Your task to perform on an android device: search for starred emails in the gmail app Image 0: 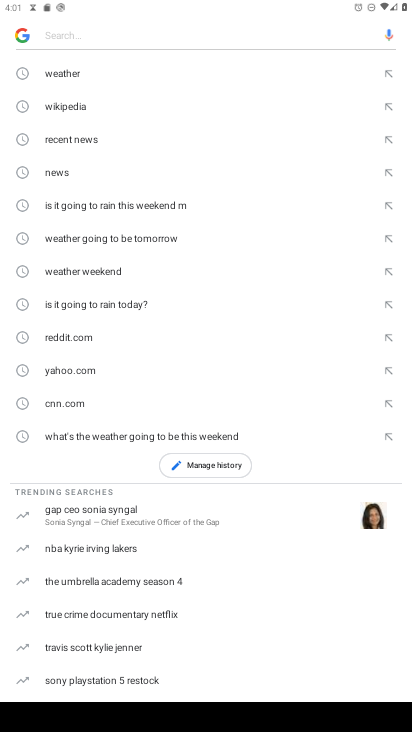
Step 0: press home button
Your task to perform on an android device: search for starred emails in the gmail app Image 1: 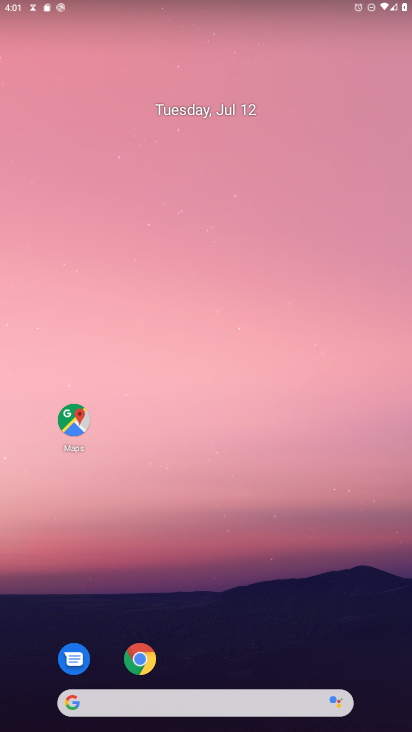
Step 1: drag from (176, 414) to (187, 64)
Your task to perform on an android device: search for starred emails in the gmail app Image 2: 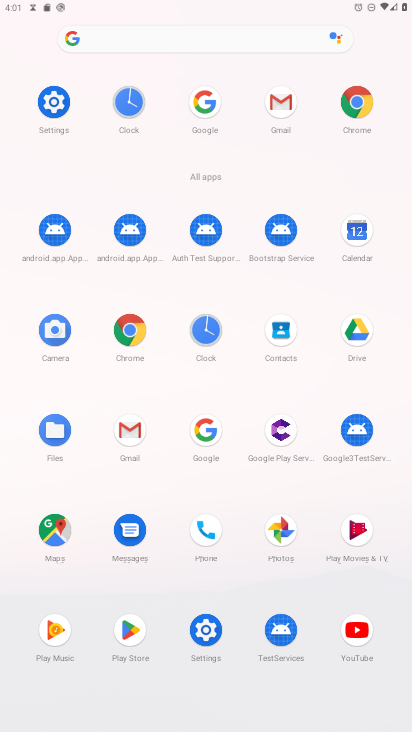
Step 2: click (284, 100)
Your task to perform on an android device: search for starred emails in the gmail app Image 3: 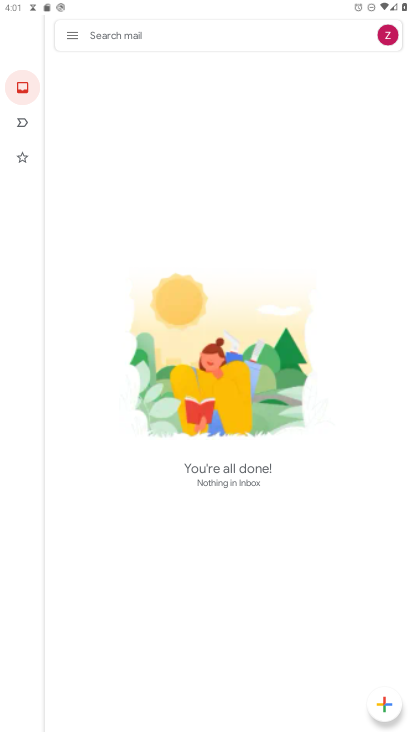
Step 3: click (68, 32)
Your task to perform on an android device: search for starred emails in the gmail app Image 4: 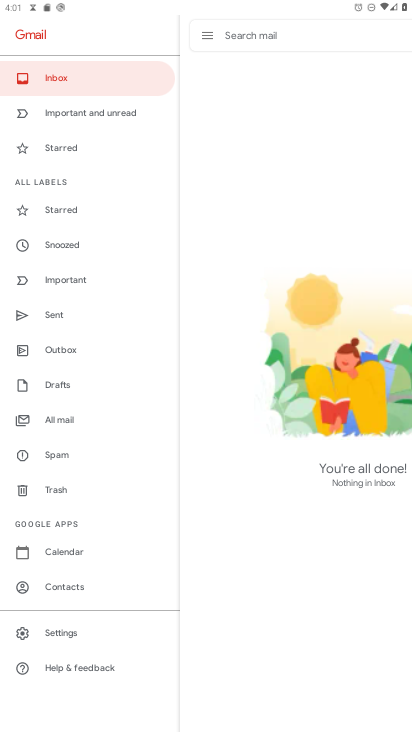
Step 4: click (63, 147)
Your task to perform on an android device: search for starred emails in the gmail app Image 5: 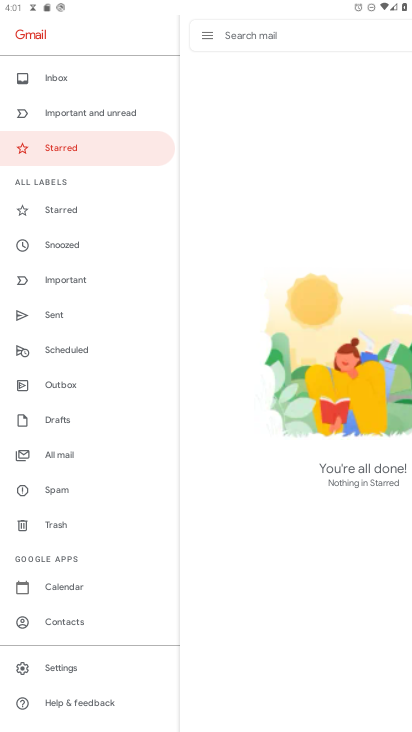
Step 5: task complete